Your task to perform on an android device: Is it going to rain today? Image 0: 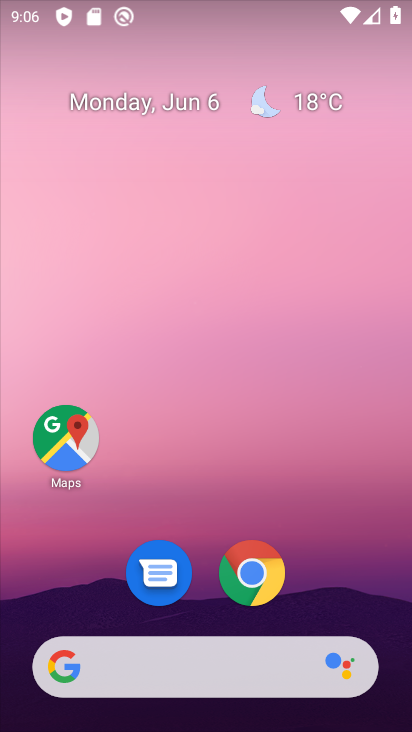
Step 0: click (229, 656)
Your task to perform on an android device: Is it going to rain today? Image 1: 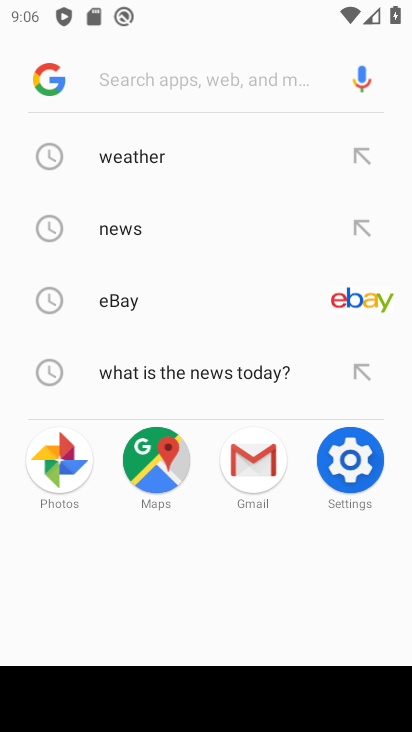
Step 1: type "Is it going to rain today?"
Your task to perform on an android device: Is it going to rain today? Image 2: 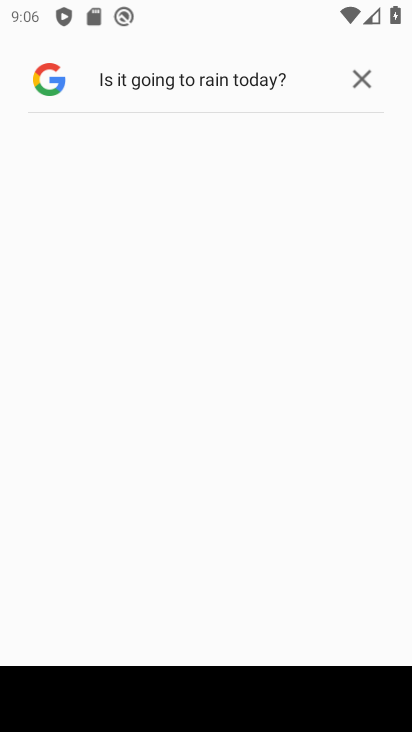
Step 2: press enter
Your task to perform on an android device: Is it going to rain today? Image 3: 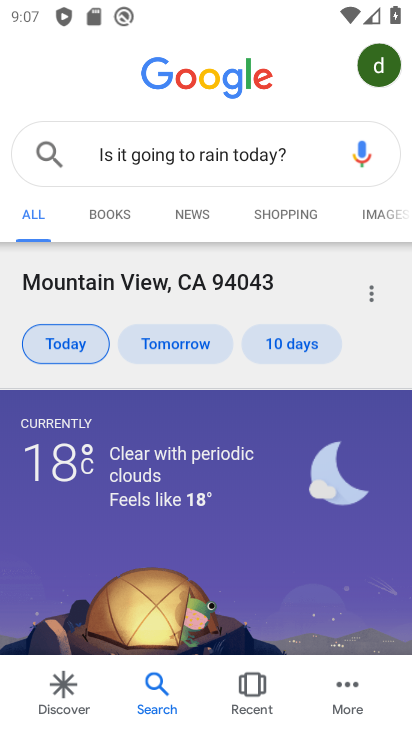
Step 3: click (393, 450)
Your task to perform on an android device: Is it going to rain today? Image 4: 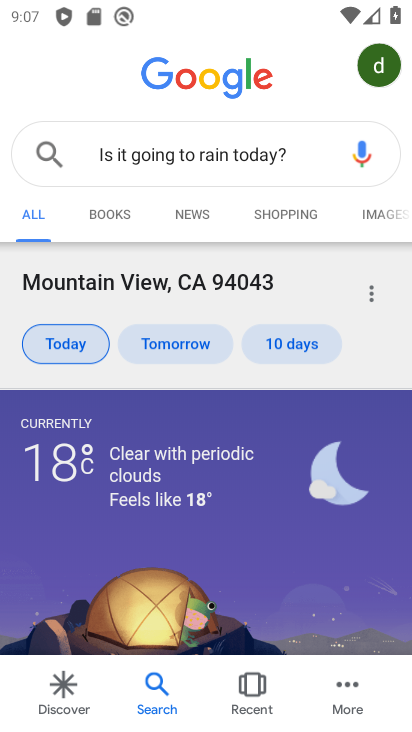
Step 4: task complete